Your task to perform on an android device: turn on translation in the chrome app Image 0: 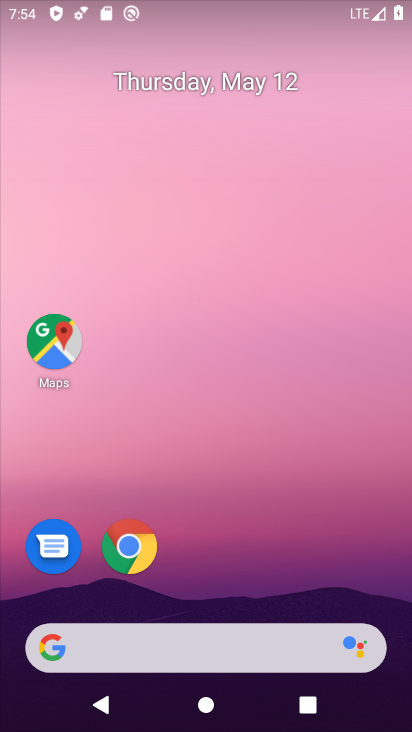
Step 0: click (123, 544)
Your task to perform on an android device: turn on translation in the chrome app Image 1: 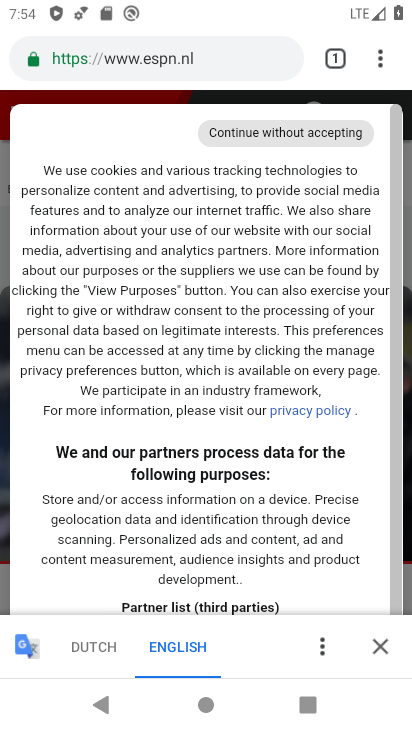
Step 1: click (378, 57)
Your task to perform on an android device: turn on translation in the chrome app Image 2: 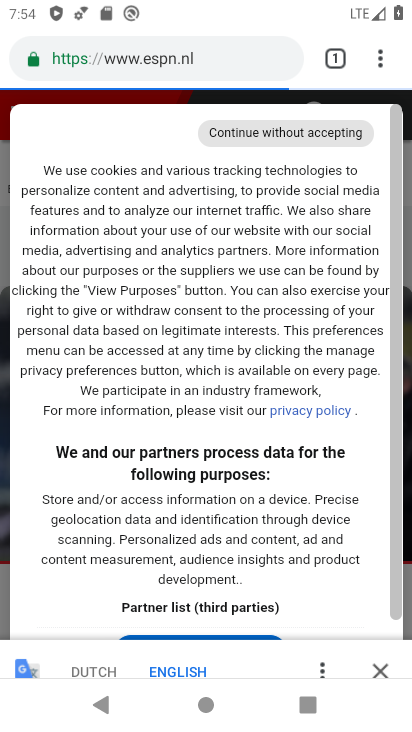
Step 2: drag from (365, 64) to (167, 565)
Your task to perform on an android device: turn on translation in the chrome app Image 3: 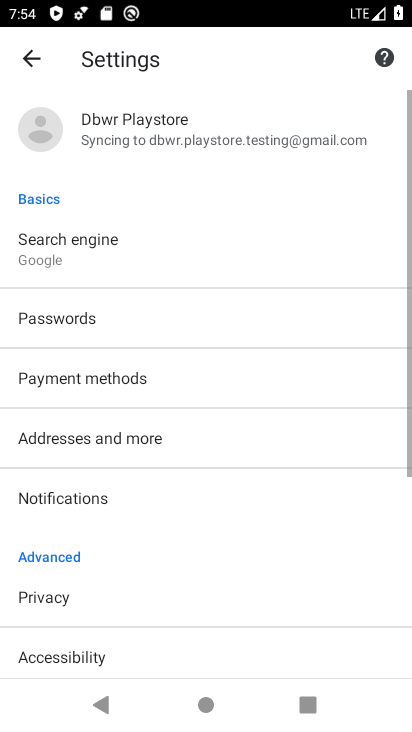
Step 3: drag from (146, 552) to (224, 148)
Your task to perform on an android device: turn on translation in the chrome app Image 4: 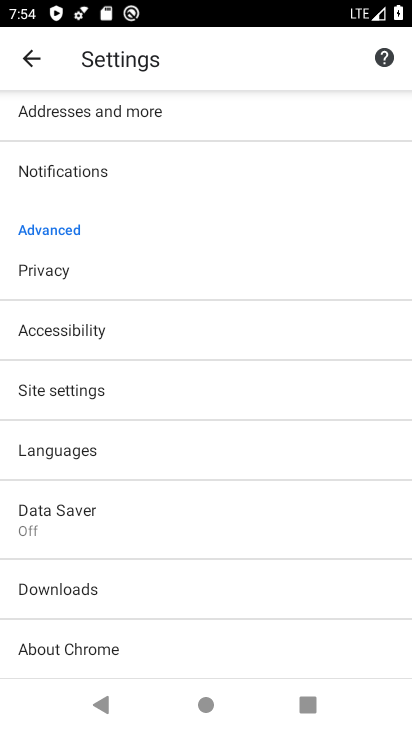
Step 4: click (97, 455)
Your task to perform on an android device: turn on translation in the chrome app Image 5: 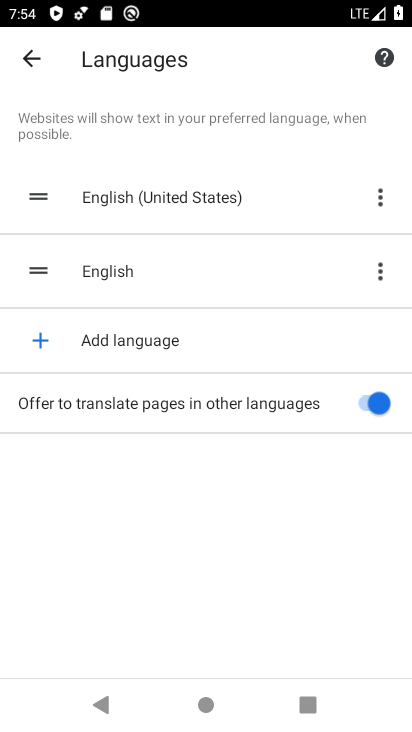
Step 5: task complete